Your task to perform on an android device: Search for a sofa on article.com Image 0: 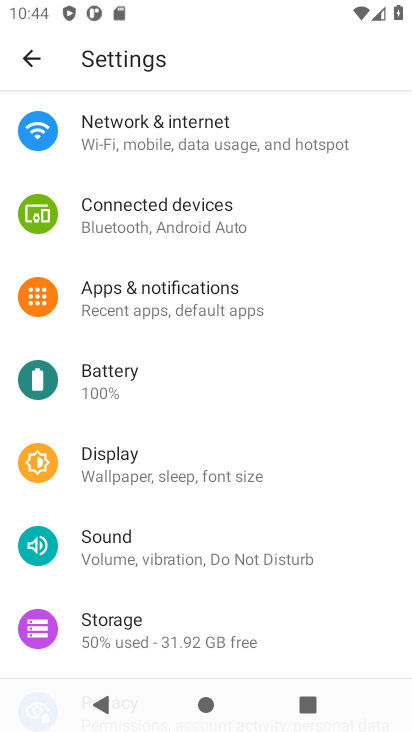
Step 0: press home button
Your task to perform on an android device: Search for a sofa on article.com Image 1: 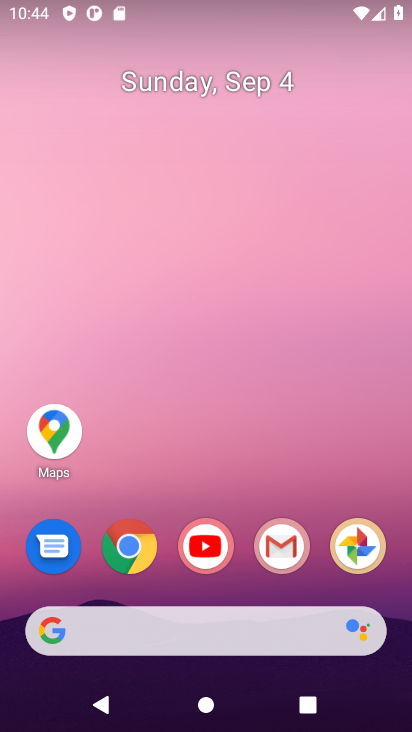
Step 1: click (124, 545)
Your task to perform on an android device: Search for a sofa on article.com Image 2: 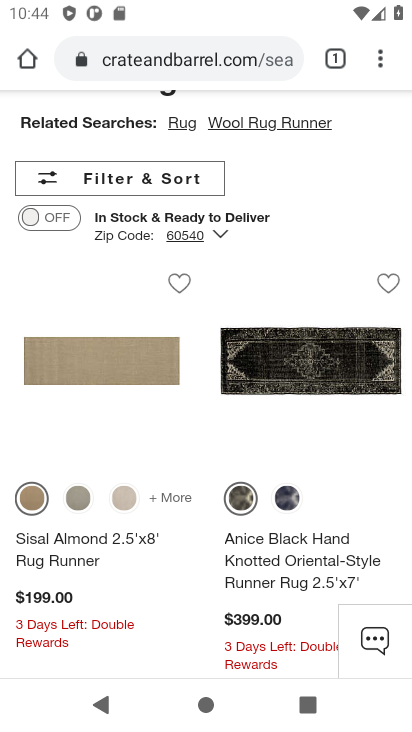
Step 2: click (172, 59)
Your task to perform on an android device: Search for a sofa on article.com Image 3: 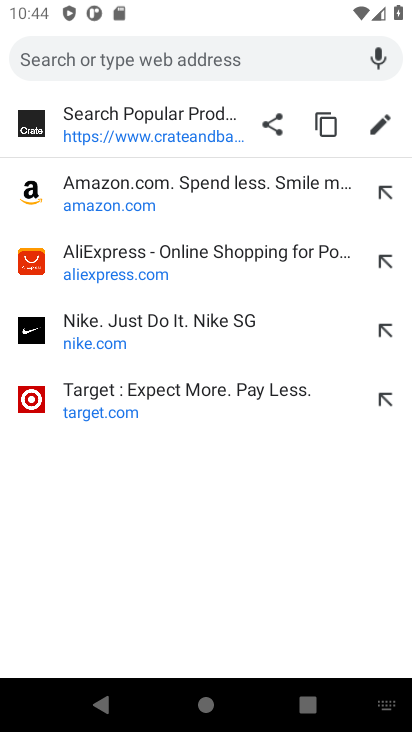
Step 3: type "article.com"
Your task to perform on an android device: Search for a sofa on article.com Image 4: 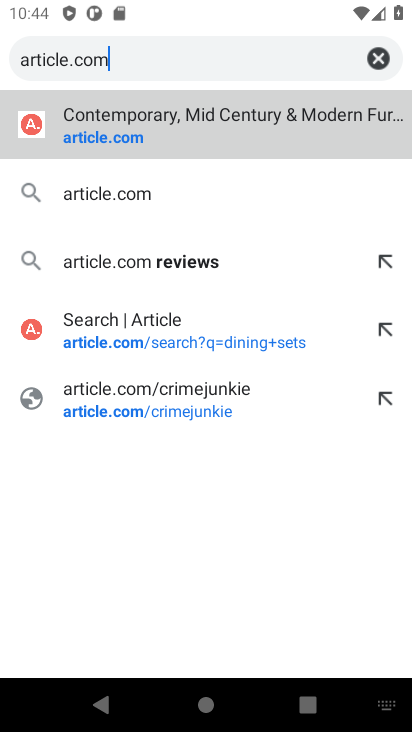
Step 4: click (111, 197)
Your task to perform on an android device: Search for a sofa on article.com Image 5: 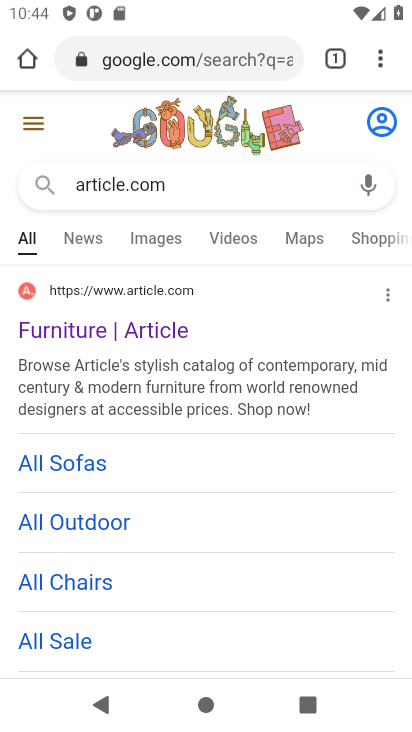
Step 5: click (97, 342)
Your task to perform on an android device: Search for a sofa on article.com Image 6: 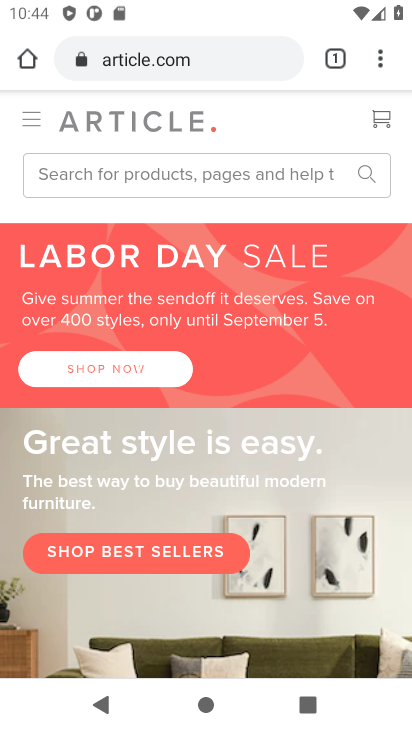
Step 6: click (94, 161)
Your task to perform on an android device: Search for a sofa on article.com Image 7: 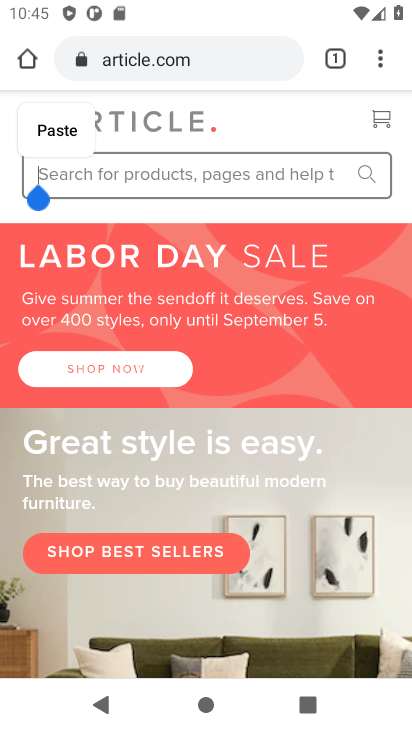
Step 7: type "sofa"
Your task to perform on an android device: Search for a sofa on article.com Image 8: 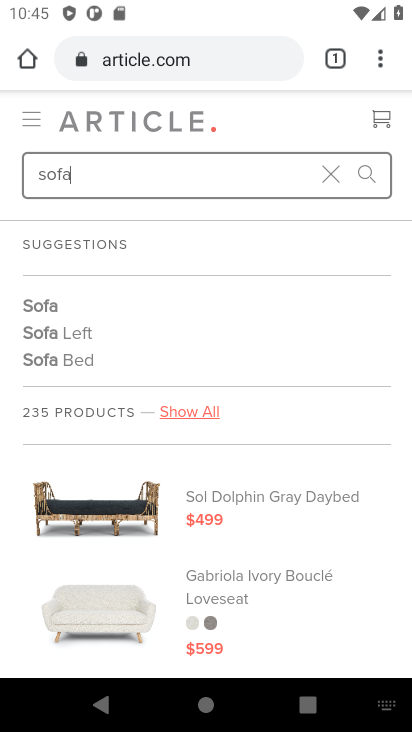
Step 8: task complete